Your task to perform on an android device: allow cookies in the chrome app Image 0: 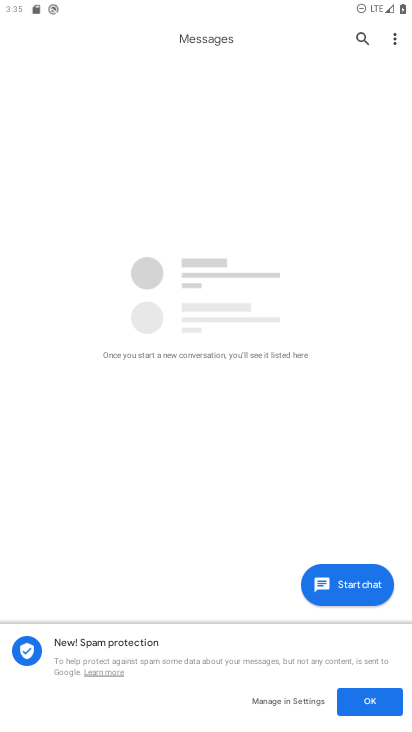
Step 0: press home button
Your task to perform on an android device: allow cookies in the chrome app Image 1: 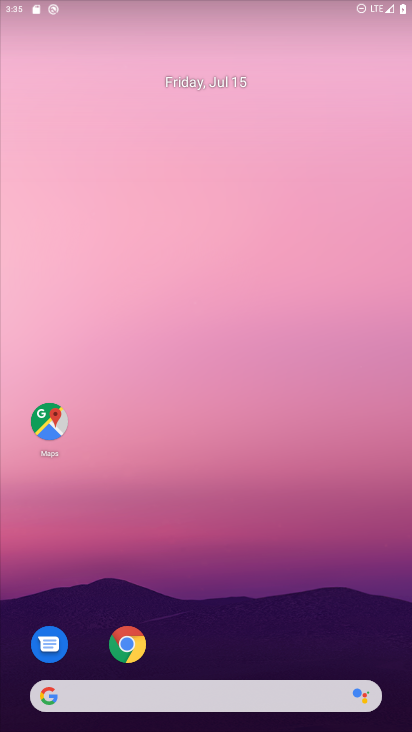
Step 1: drag from (18, 592) to (309, 149)
Your task to perform on an android device: allow cookies in the chrome app Image 2: 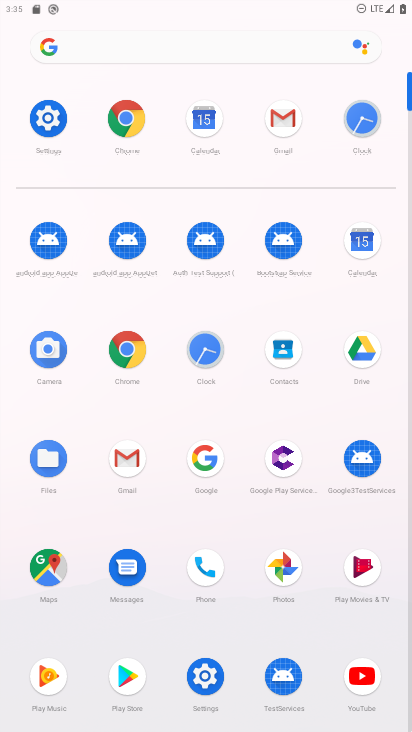
Step 2: click (125, 123)
Your task to perform on an android device: allow cookies in the chrome app Image 3: 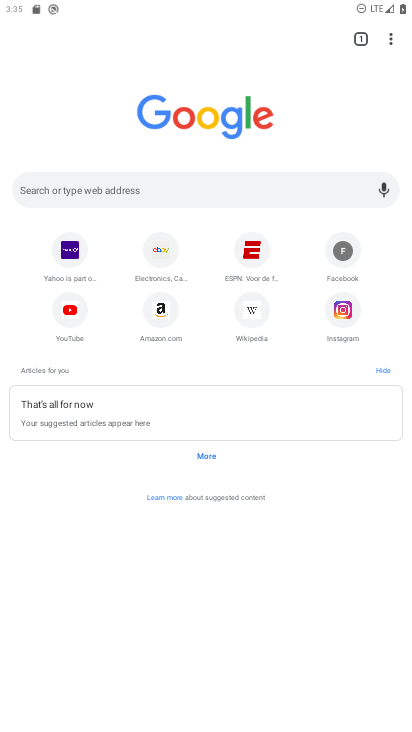
Step 3: click (386, 43)
Your task to perform on an android device: allow cookies in the chrome app Image 4: 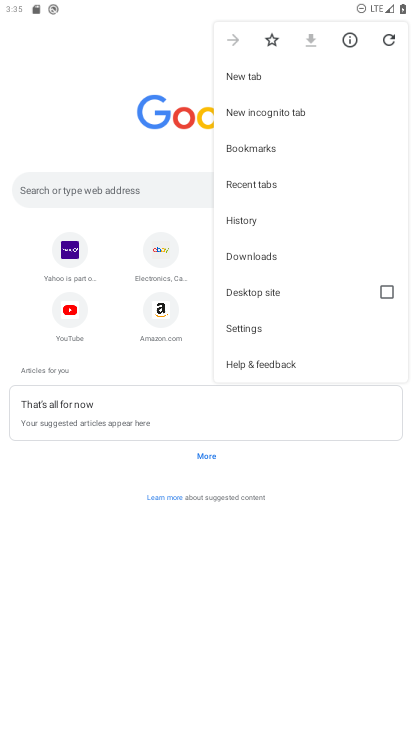
Step 4: click (242, 329)
Your task to perform on an android device: allow cookies in the chrome app Image 5: 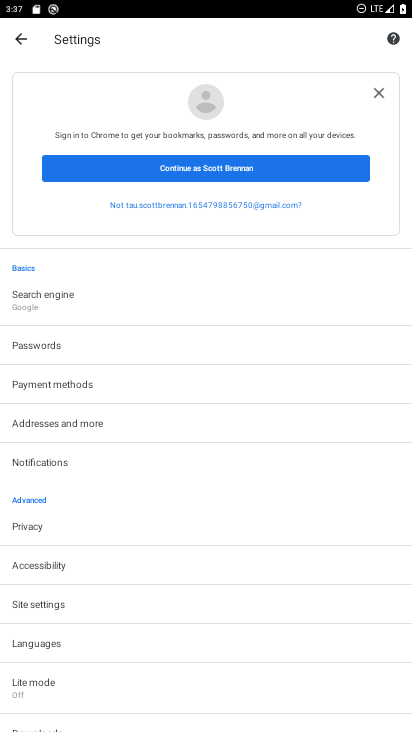
Step 5: task complete